Your task to perform on an android device: toggle airplane mode Image 0: 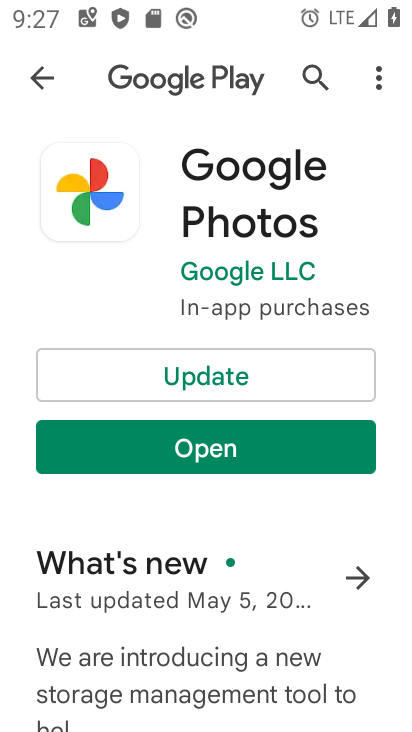
Step 0: press home button
Your task to perform on an android device: toggle airplane mode Image 1: 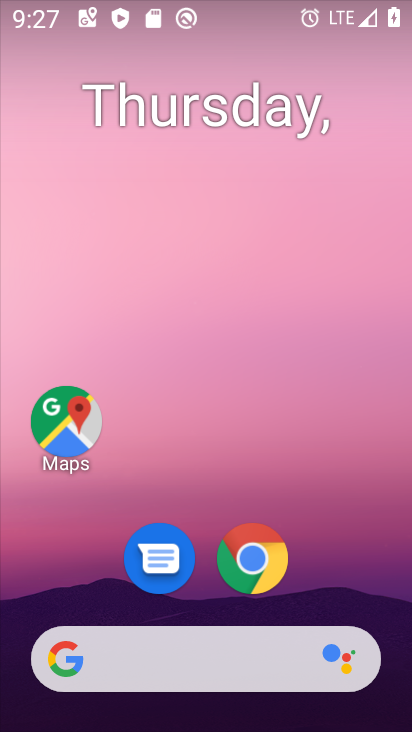
Step 1: drag from (381, 604) to (332, 131)
Your task to perform on an android device: toggle airplane mode Image 2: 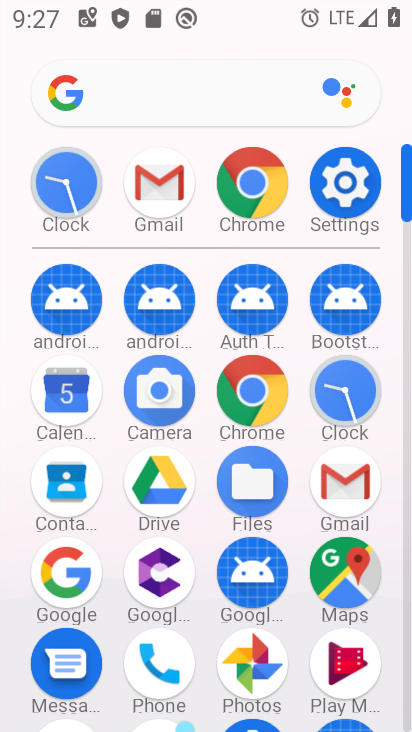
Step 2: click (405, 712)
Your task to perform on an android device: toggle airplane mode Image 3: 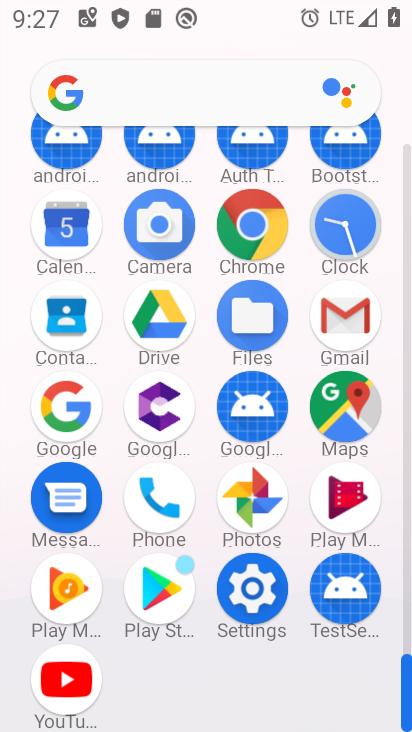
Step 3: click (253, 591)
Your task to perform on an android device: toggle airplane mode Image 4: 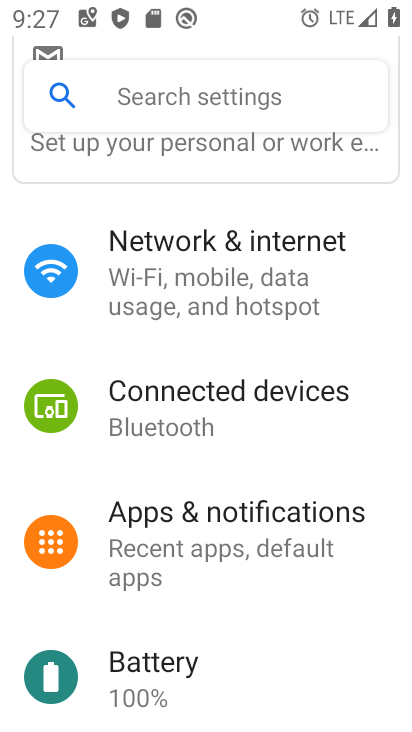
Step 4: click (146, 253)
Your task to perform on an android device: toggle airplane mode Image 5: 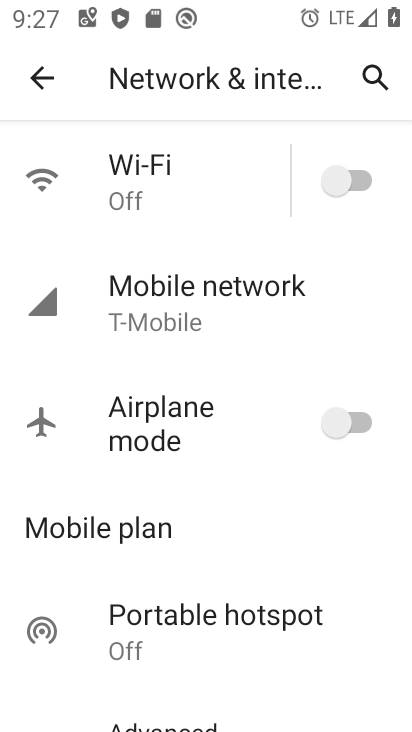
Step 5: click (353, 418)
Your task to perform on an android device: toggle airplane mode Image 6: 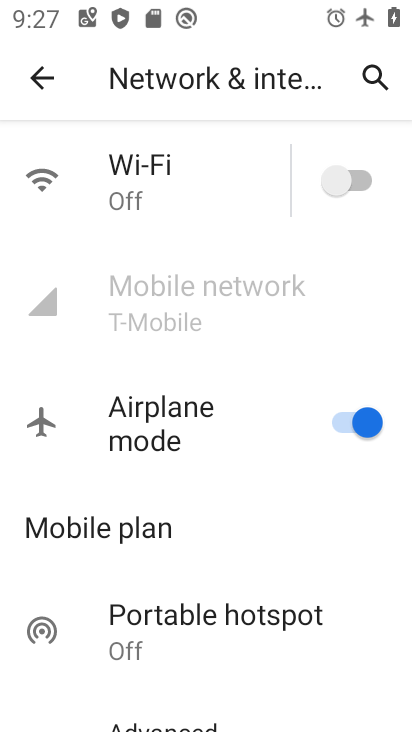
Step 6: task complete